Your task to perform on an android device: Open Android settings Image 0: 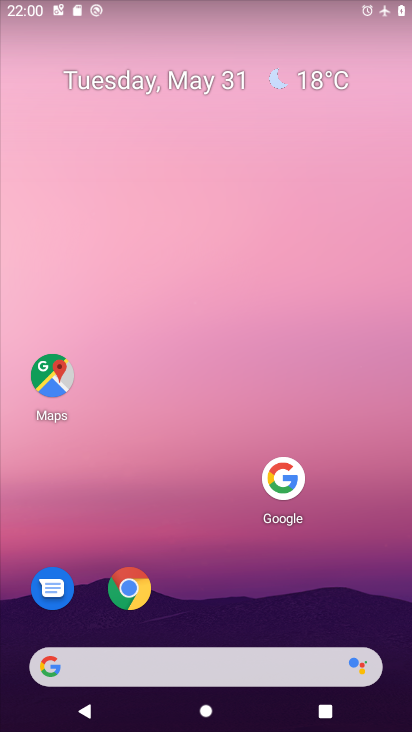
Step 0: press home button
Your task to perform on an android device: Open Android settings Image 1: 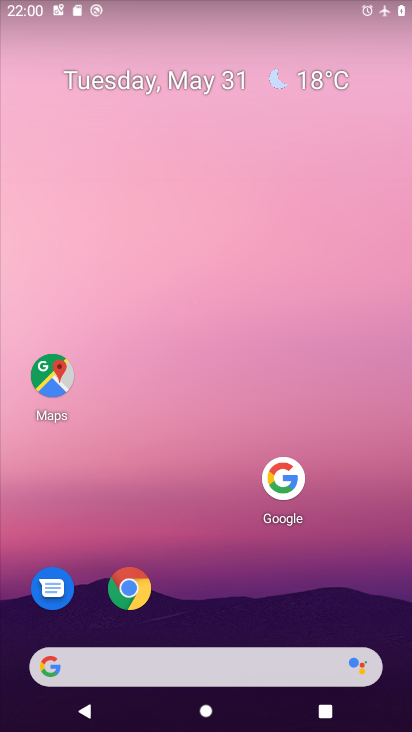
Step 1: drag from (151, 671) to (325, 87)
Your task to perform on an android device: Open Android settings Image 2: 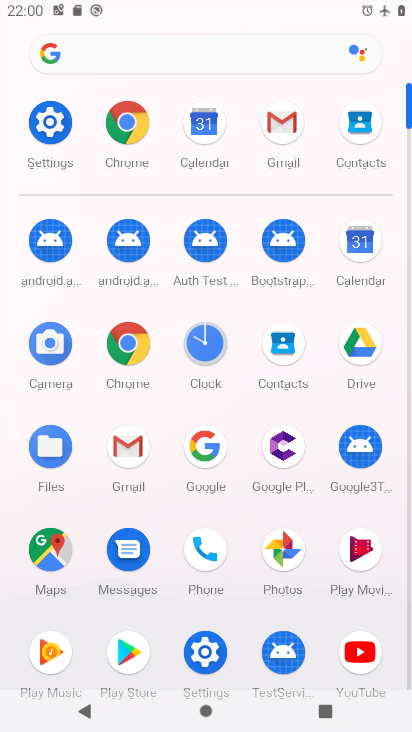
Step 2: click (50, 123)
Your task to perform on an android device: Open Android settings Image 3: 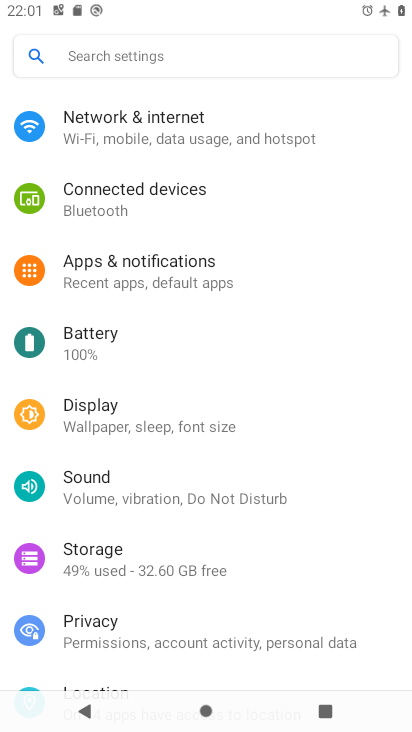
Step 3: task complete